Your task to perform on an android device: see tabs open on other devices in the chrome app Image 0: 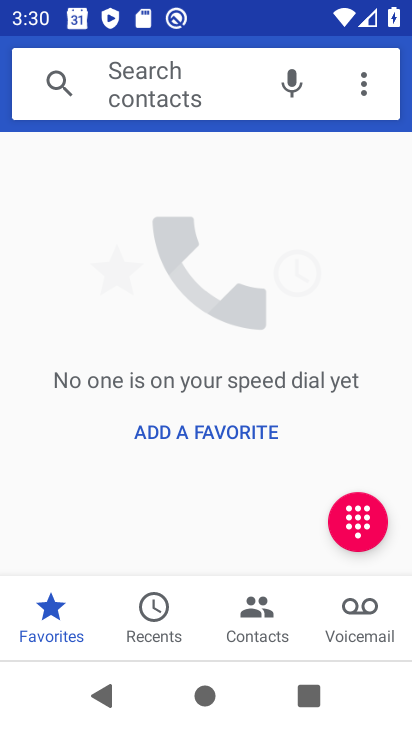
Step 0: press home button
Your task to perform on an android device: see tabs open on other devices in the chrome app Image 1: 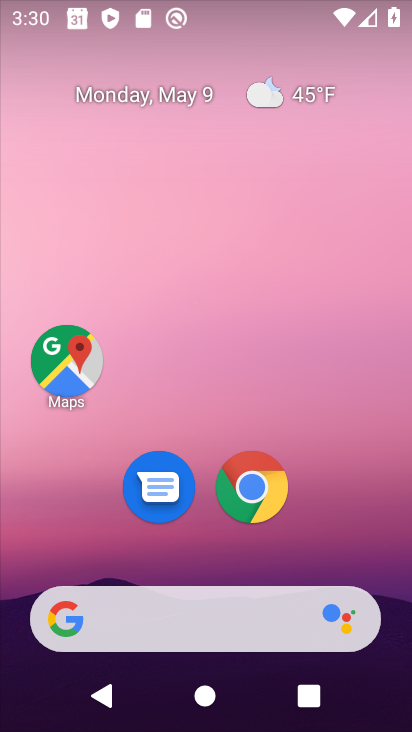
Step 1: click (253, 488)
Your task to perform on an android device: see tabs open on other devices in the chrome app Image 2: 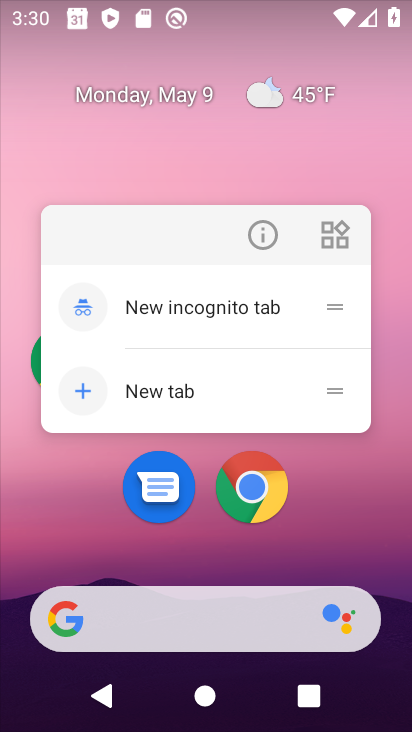
Step 2: click (255, 500)
Your task to perform on an android device: see tabs open on other devices in the chrome app Image 3: 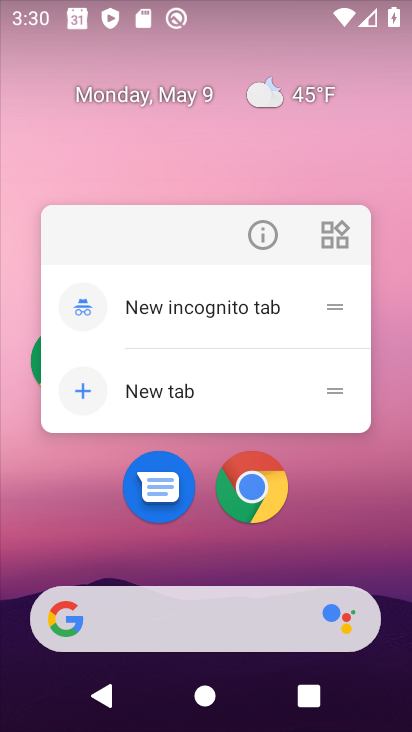
Step 3: click (255, 496)
Your task to perform on an android device: see tabs open on other devices in the chrome app Image 4: 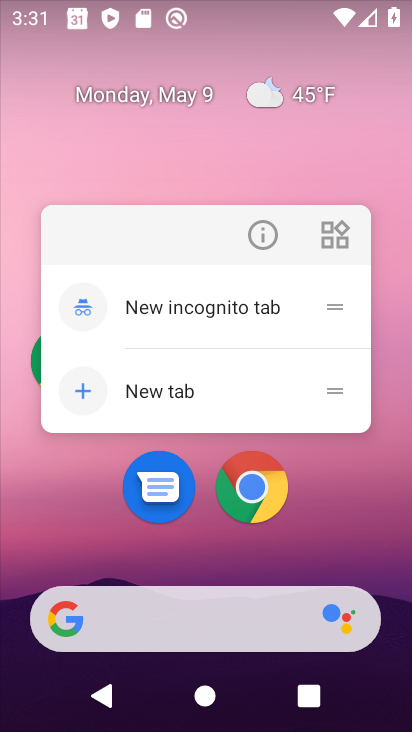
Step 4: click (255, 489)
Your task to perform on an android device: see tabs open on other devices in the chrome app Image 5: 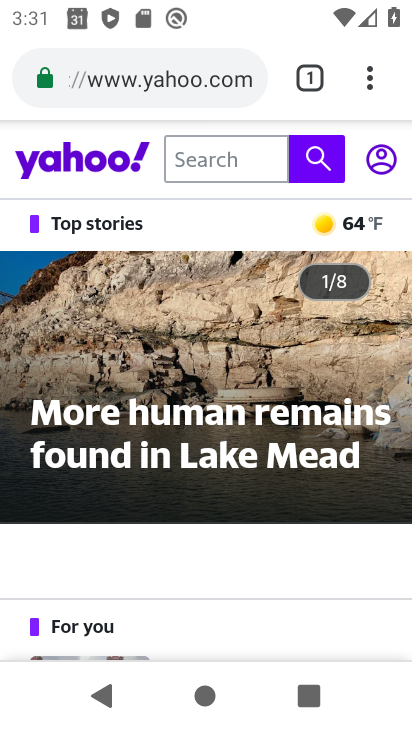
Step 5: click (309, 84)
Your task to perform on an android device: see tabs open on other devices in the chrome app Image 6: 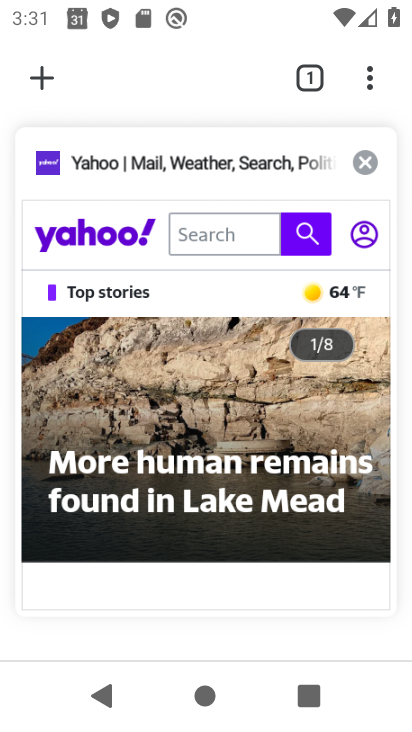
Step 6: task complete